Your task to perform on an android device: turn off notifications settings in the gmail app Image 0: 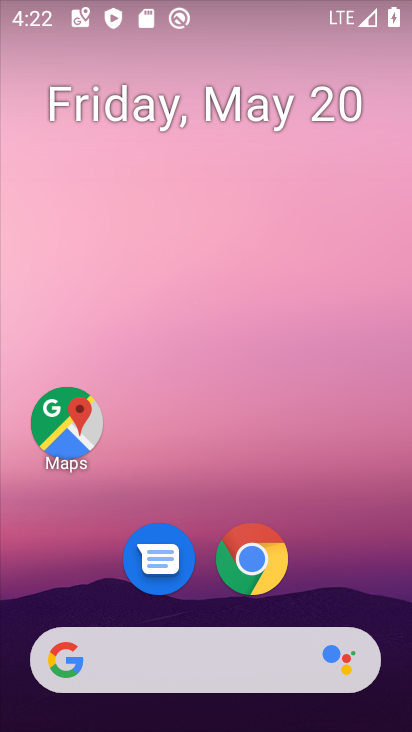
Step 0: drag from (203, 598) to (203, 184)
Your task to perform on an android device: turn off notifications settings in the gmail app Image 1: 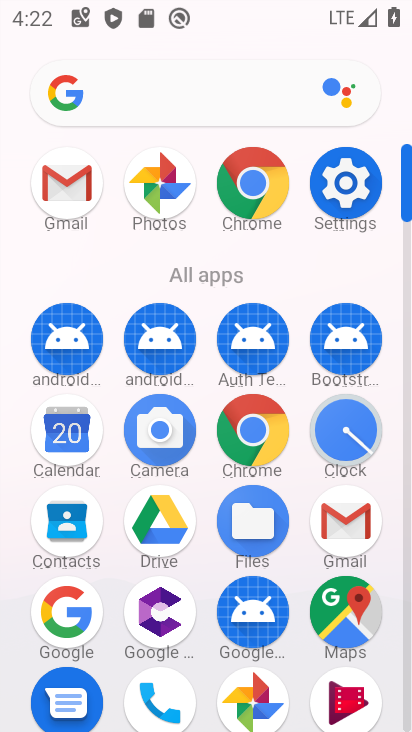
Step 1: click (344, 525)
Your task to perform on an android device: turn off notifications settings in the gmail app Image 2: 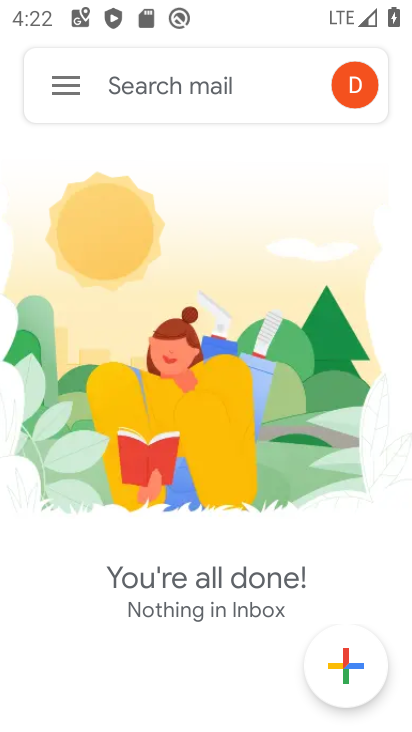
Step 2: click (67, 77)
Your task to perform on an android device: turn off notifications settings in the gmail app Image 3: 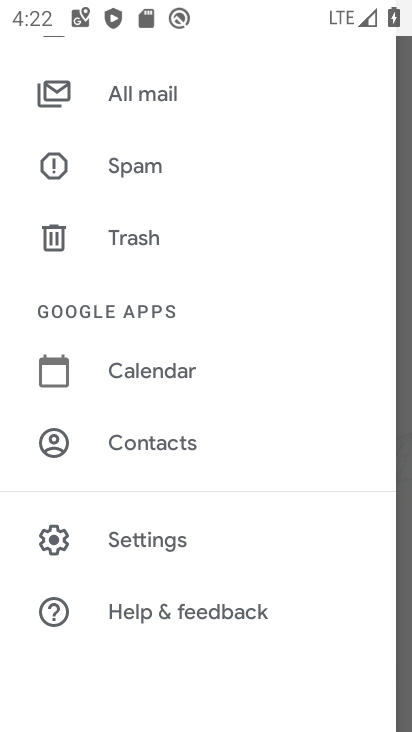
Step 3: click (143, 536)
Your task to perform on an android device: turn off notifications settings in the gmail app Image 4: 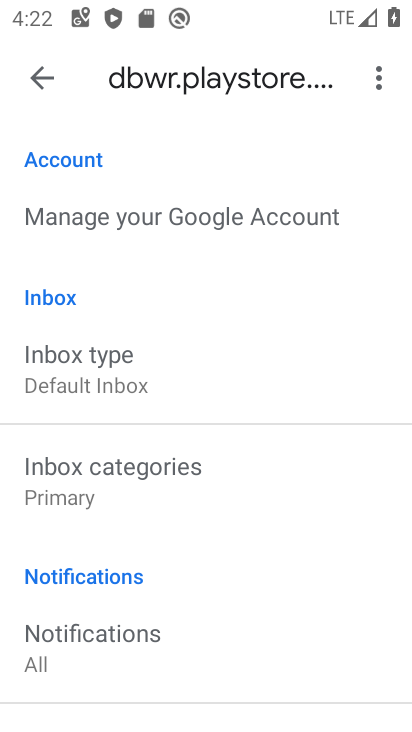
Step 4: click (46, 78)
Your task to perform on an android device: turn off notifications settings in the gmail app Image 5: 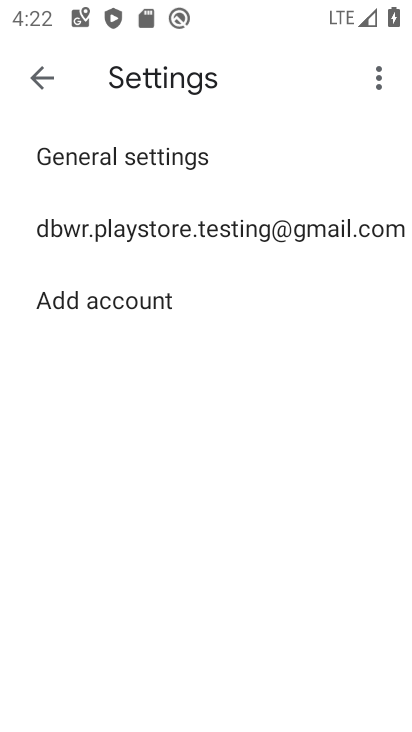
Step 5: click (84, 161)
Your task to perform on an android device: turn off notifications settings in the gmail app Image 6: 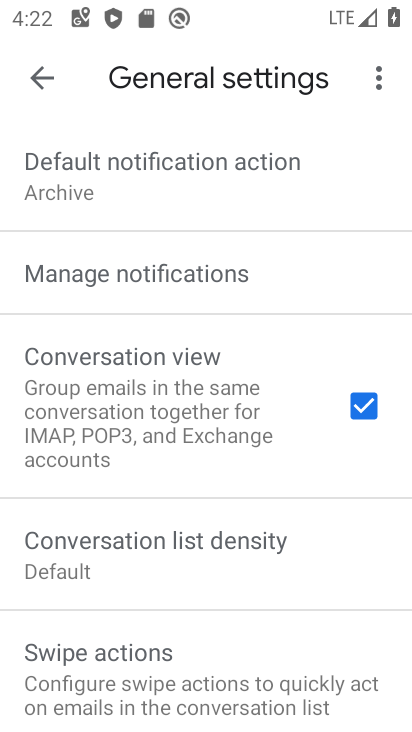
Step 6: click (114, 280)
Your task to perform on an android device: turn off notifications settings in the gmail app Image 7: 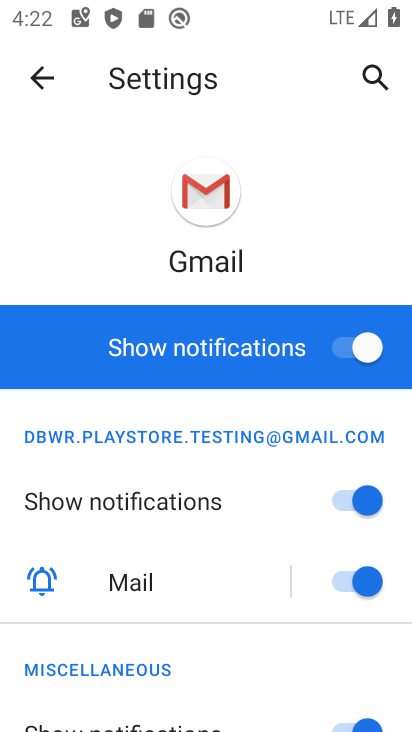
Step 7: click (349, 352)
Your task to perform on an android device: turn off notifications settings in the gmail app Image 8: 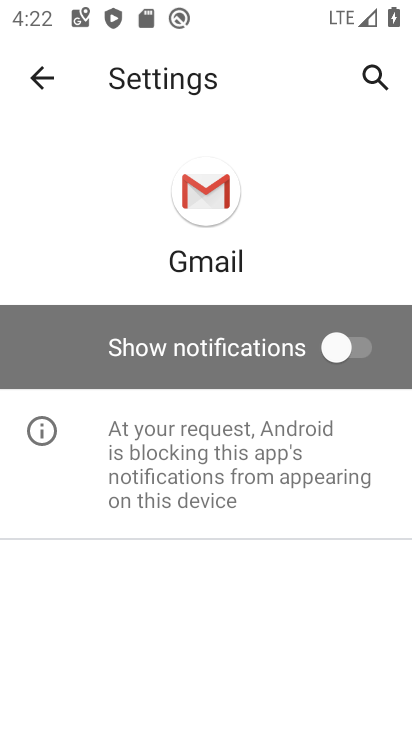
Step 8: task complete